Your task to perform on an android device: turn vacation reply on in the gmail app Image 0: 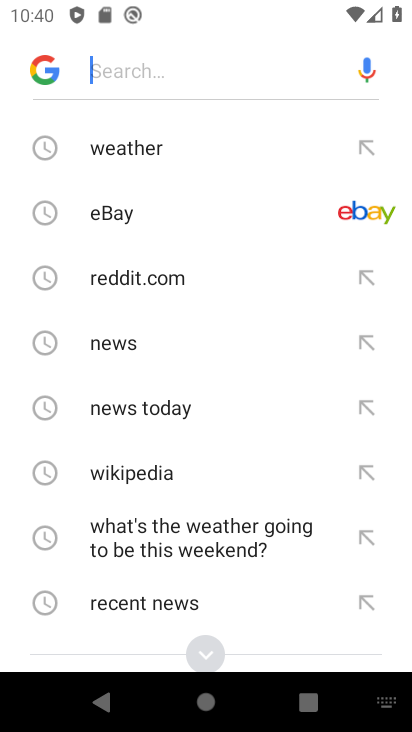
Step 0: press home button
Your task to perform on an android device: turn vacation reply on in the gmail app Image 1: 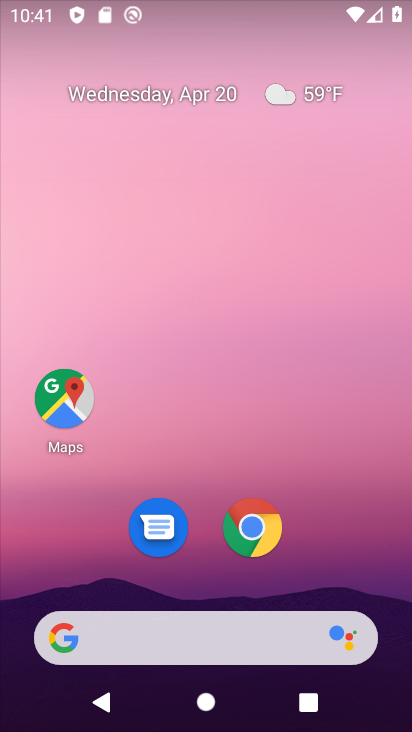
Step 1: drag from (361, 526) to (372, 117)
Your task to perform on an android device: turn vacation reply on in the gmail app Image 2: 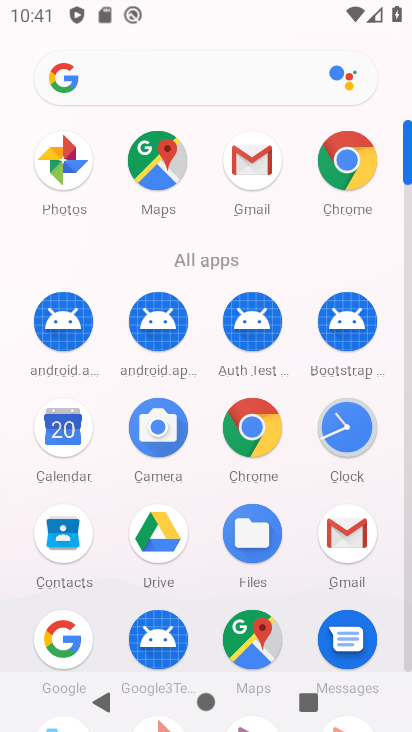
Step 2: click (355, 538)
Your task to perform on an android device: turn vacation reply on in the gmail app Image 3: 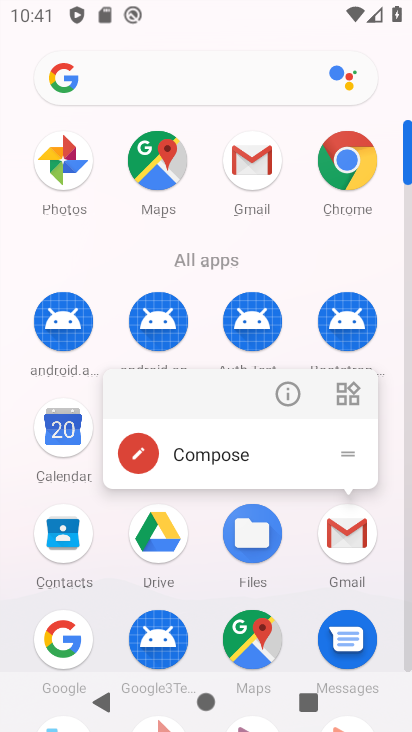
Step 3: click (360, 540)
Your task to perform on an android device: turn vacation reply on in the gmail app Image 4: 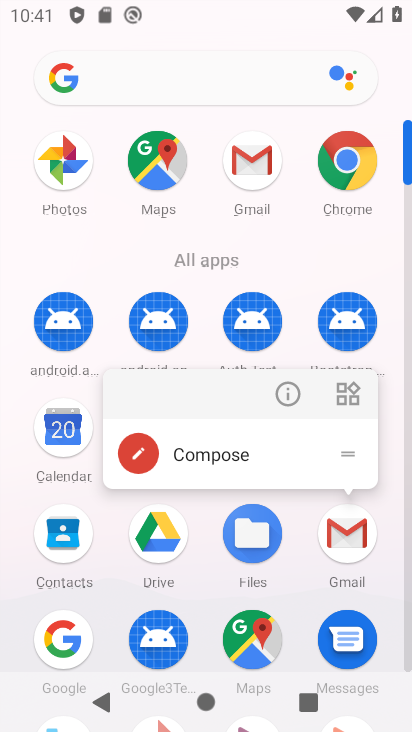
Step 4: click (352, 553)
Your task to perform on an android device: turn vacation reply on in the gmail app Image 5: 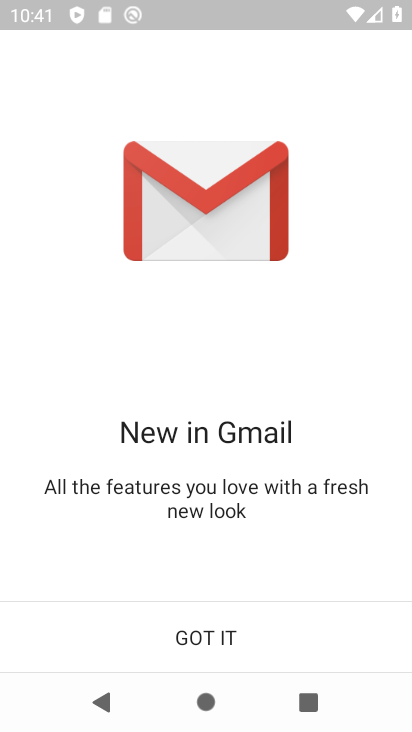
Step 5: click (207, 634)
Your task to perform on an android device: turn vacation reply on in the gmail app Image 6: 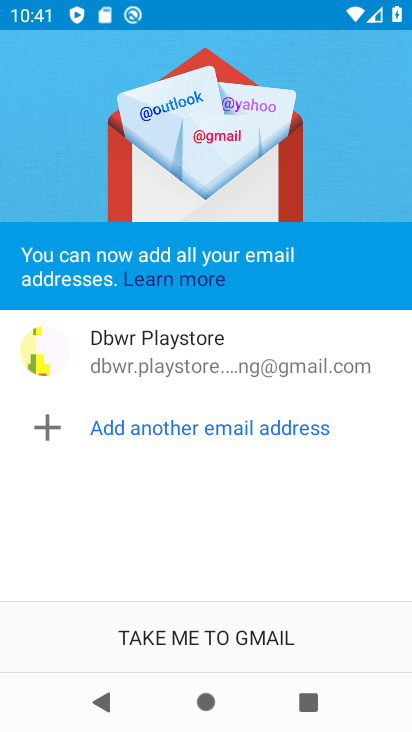
Step 6: click (206, 626)
Your task to perform on an android device: turn vacation reply on in the gmail app Image 7: 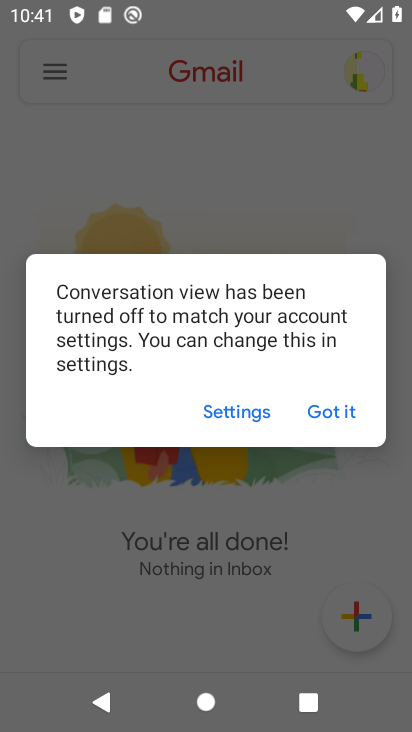
Step 7: click (352, 410)
Your task to perform on an android device: turn vacation reply on in the gmail app Image 8: 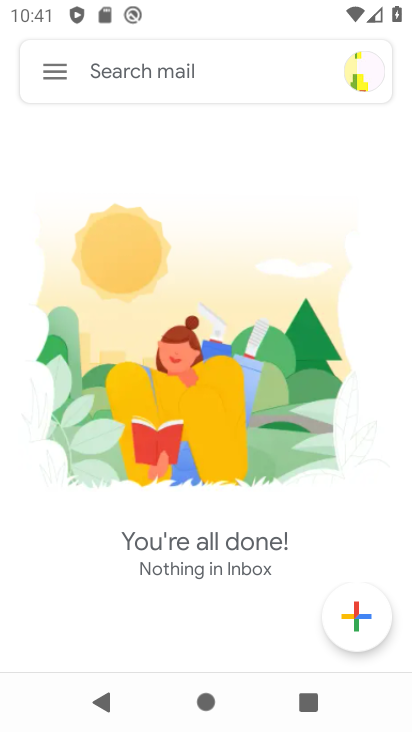
Step 8: click (58, 76)
Your task to perform on an android device: turn vacation reply on in the gmail app Image 9: 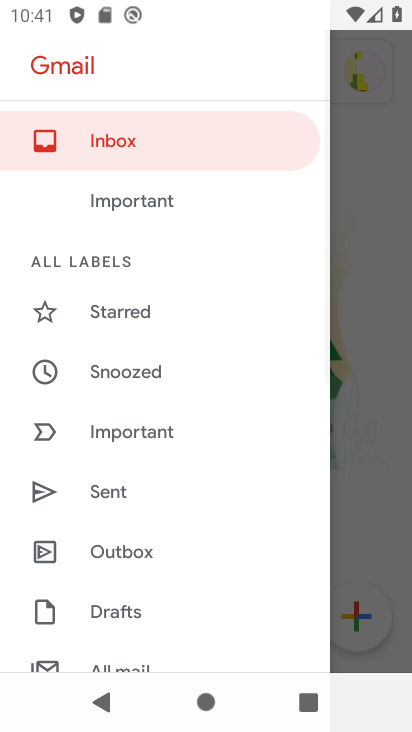
Step 9: drag from (193, 563) to (223, 296)
Your task to perform on an android device: turn vacation reply on in the gmail app Image 10: 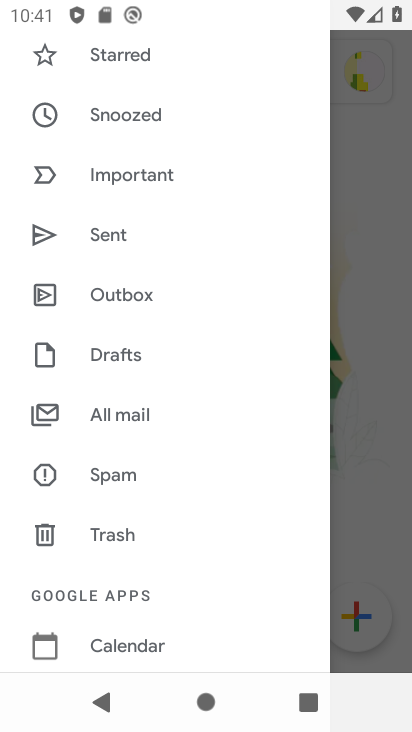
Step 10: drag from (190, 596) to (213, 200)
Your task to perform on an android device: turn vacation reply on in the gmail app Image 11: 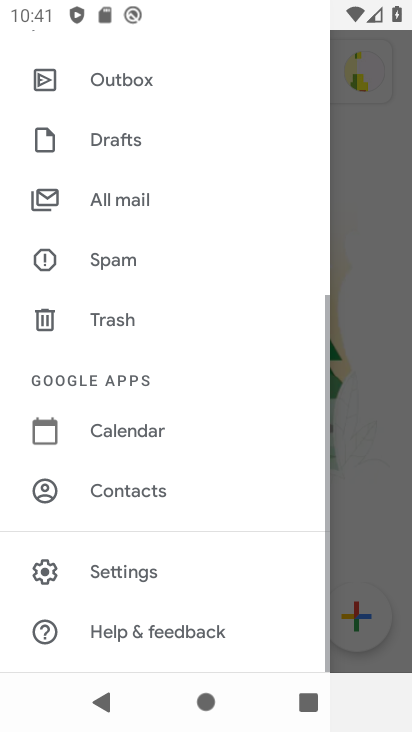
Step 11: click (142, 577)
Your task to perform on an android device: turn vacation reply on in the gmail app Image 12: 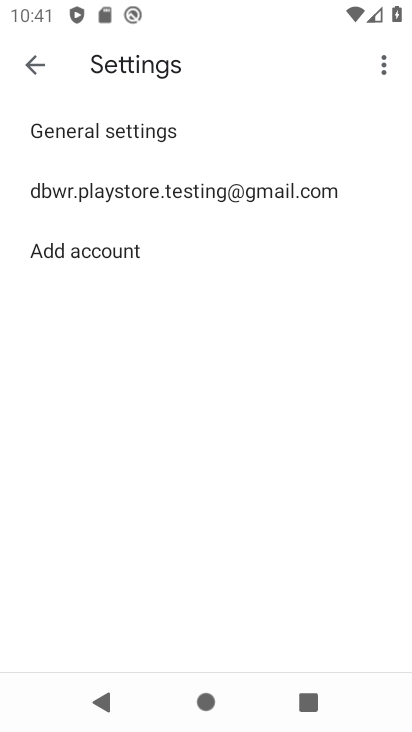
Step 12: click (164, 189)
Your task to perform on an android device: turn vacation reply on in the gmail app Image 13: 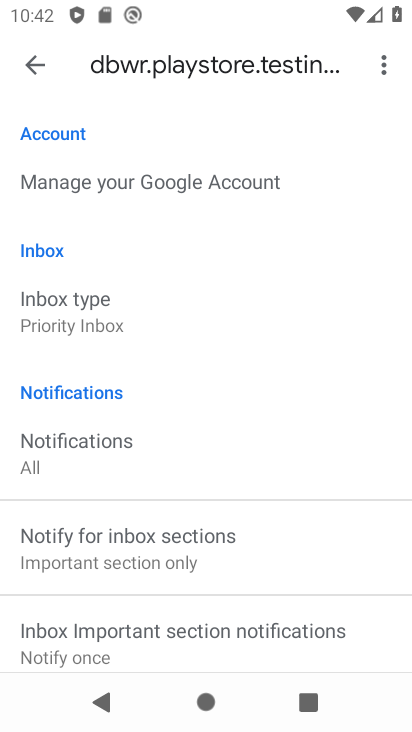
Step 13: drag from (284, 583) to (330, 294)
Your task to perform on an android device: turn vacation reply on in the gmail app Image 14: 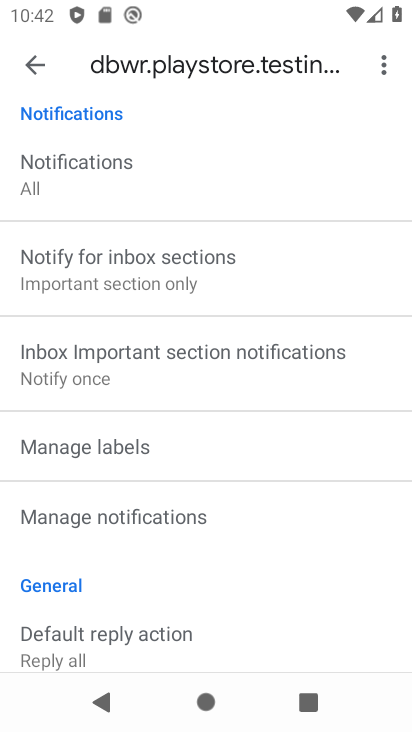
Step 14: drag from (277, 527) to (278, 242)
Your task to perform on an android device: turn vacation reply on in the gmail app Image 15: 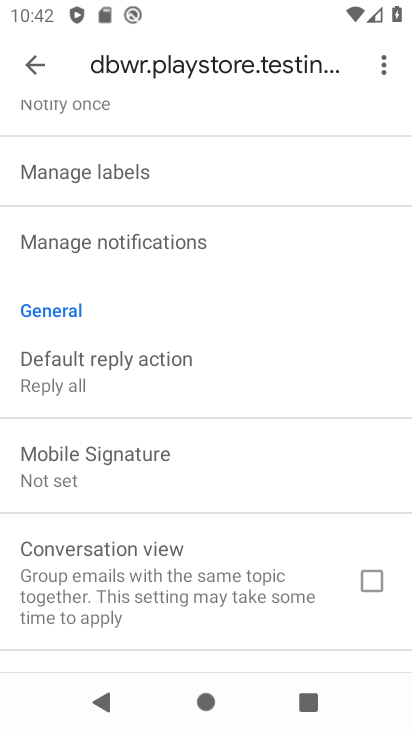
Step 15: drag from (274, 536) to (296, 194)
Your task to perform on an android device: turn vacation reply on in the gmail app Image 16: 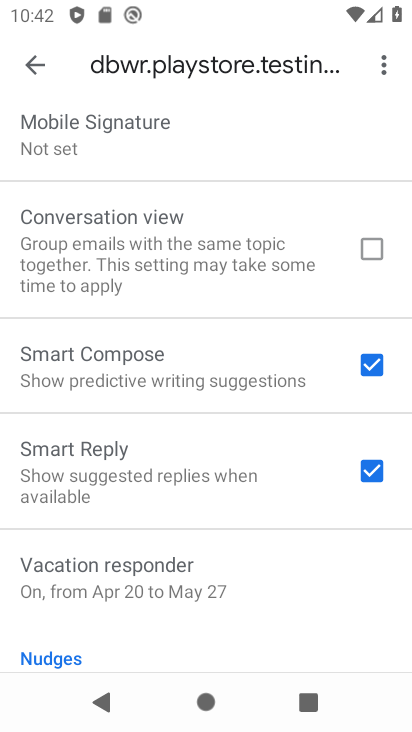
Step 16: click (151, 576)
Your task to perform on an android device: turn vacation reply on in the gmail app Image 17: 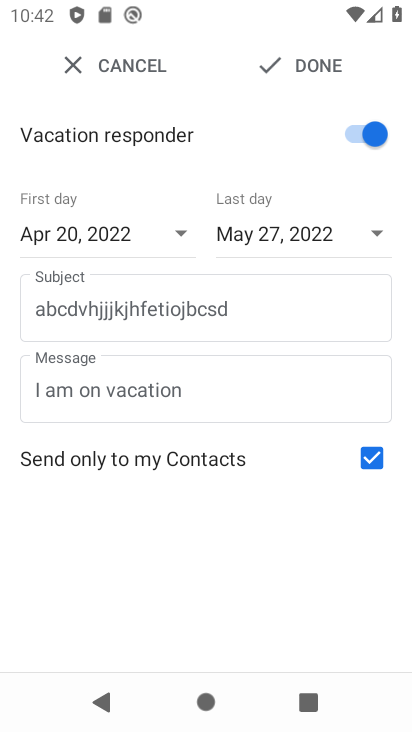
Step 17: task complete